Your task to perform on an android device: open app "Google Home" (install if not already installed) Image 0: 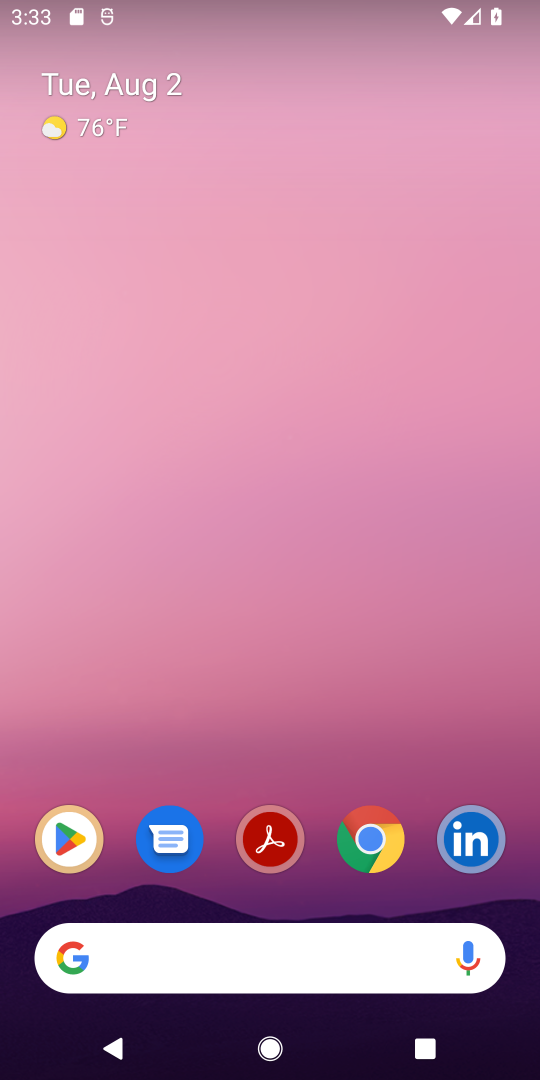
Step 0: drag from (329, 899) to (289, 181)
Your task to perform on an android device: open app "Google Home" (install if not already installed) Image 1: 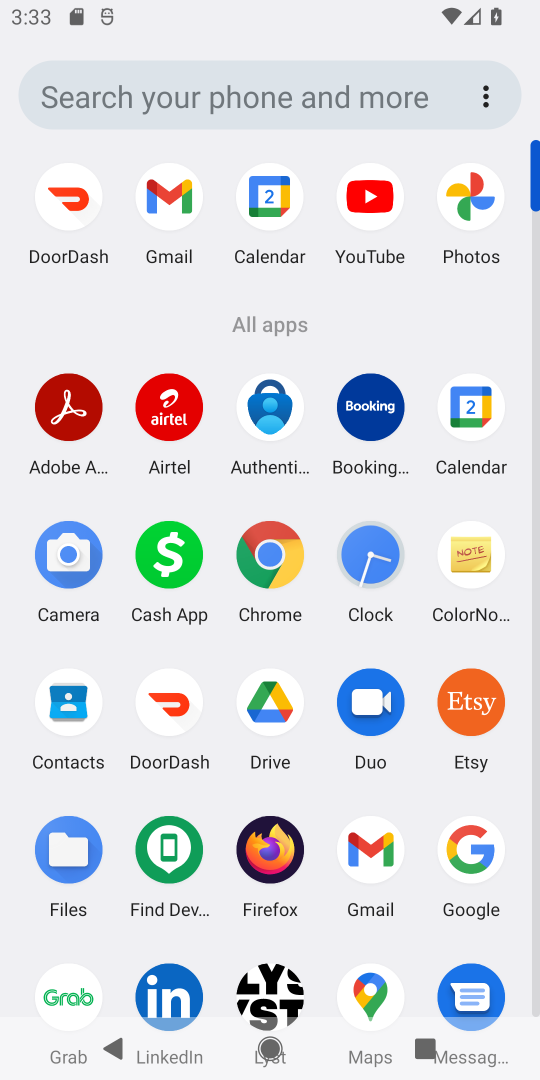
Step 1: click (244, 113)
Your task to perform on an android device: open app "Google Home" (install if not already installed) Image 2: 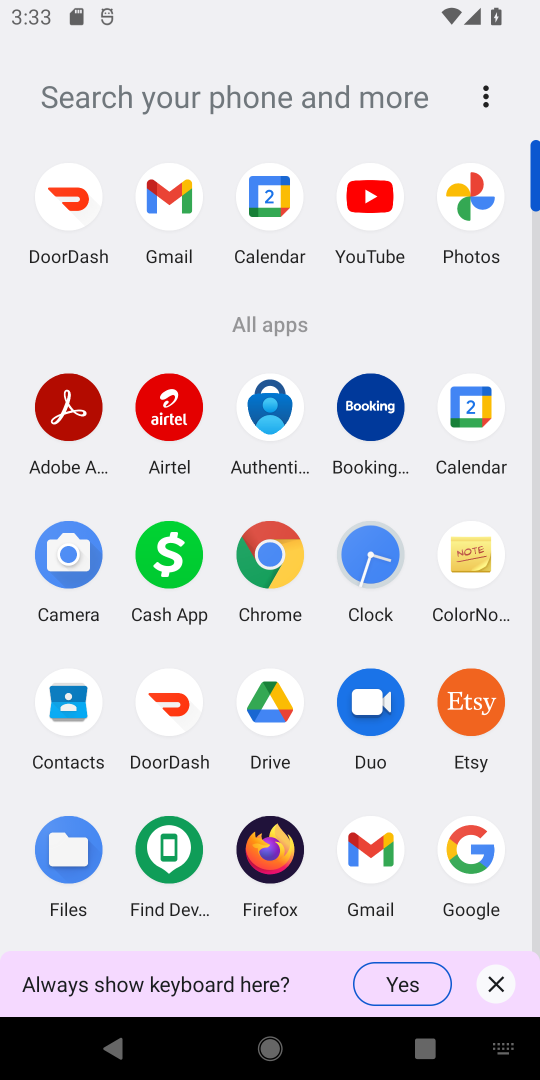
Step 2: type "google home"
Your task to perform on an android device: open app "Google Home" (install if not already installed) Image 3: 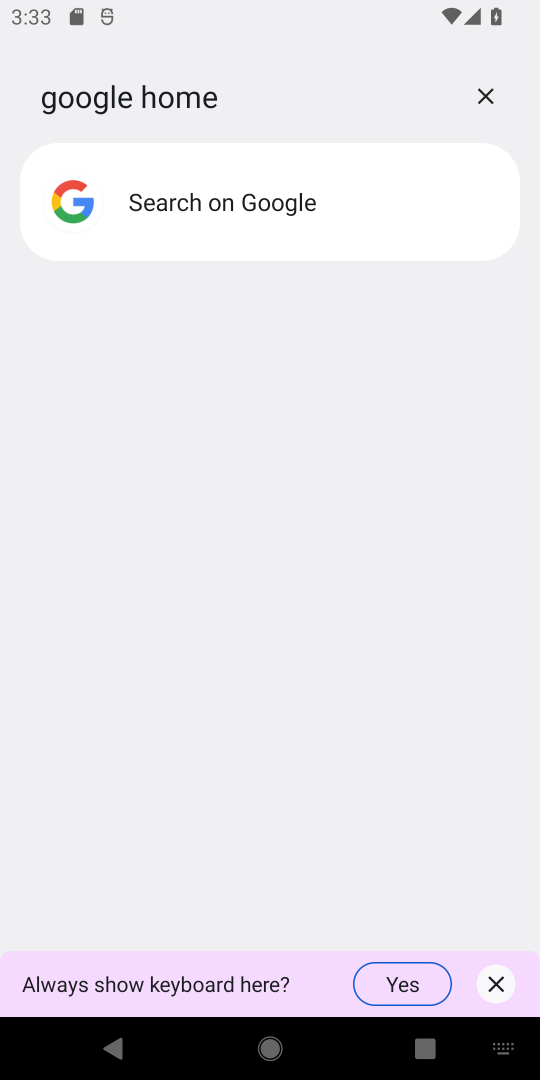
Step 3: task complete